Your task to perform on an android device: check android version Image 0: 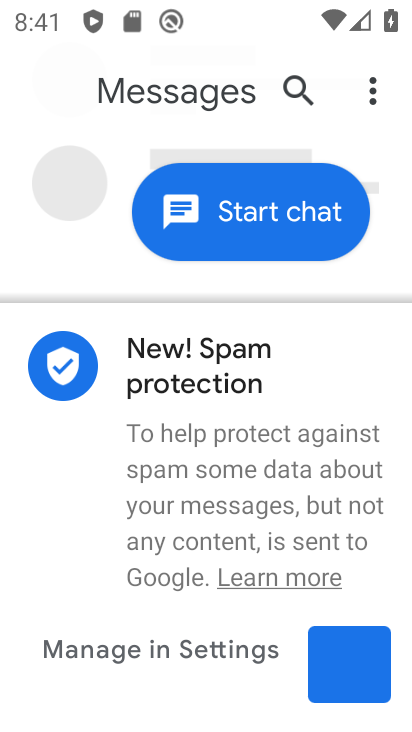
Step 0: press home button
Your task to perform on an android device: check android version Image 1: 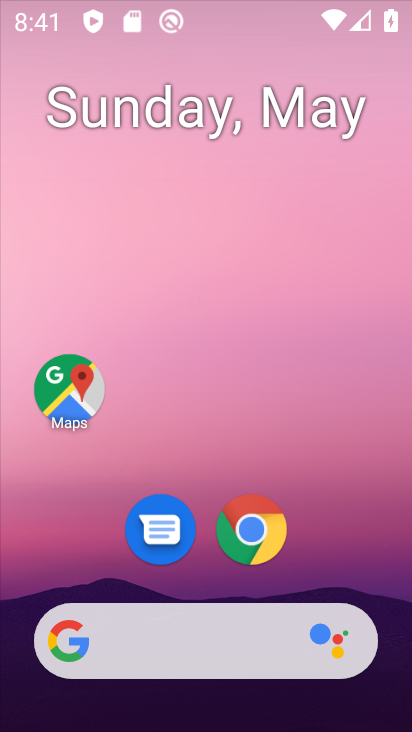
Step 1: drag from (334, 413) to (340, 84)
Your task to perform on an android device: check android version Image 2: 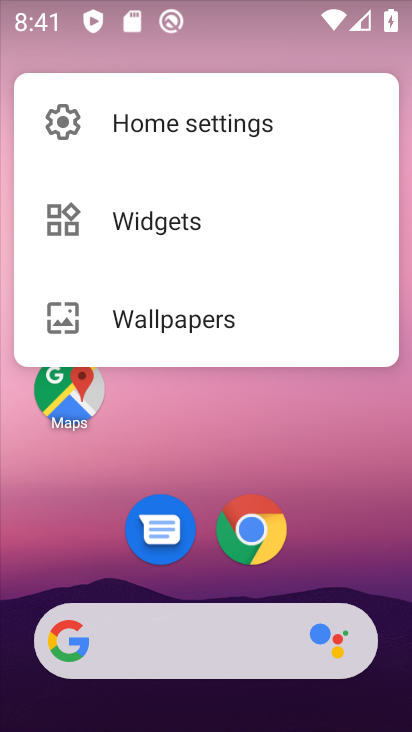
Step 2: drag from (183, 477) to (202, 37)
Your task to perform on an android device: check android version Image 3: 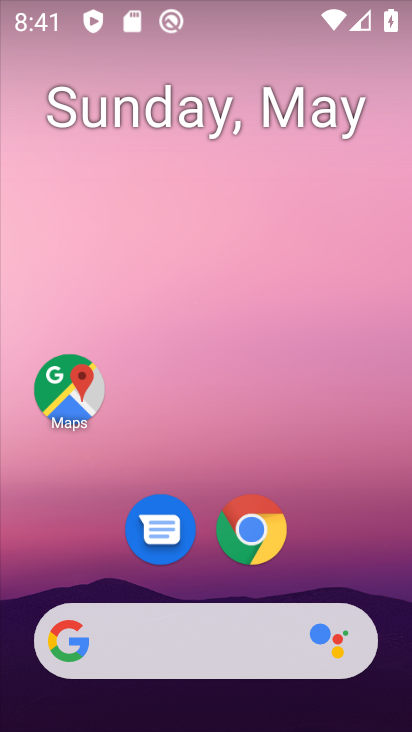
Step 3: drag from (199, 553) to (205, 101)
Your task to perform on an android device: check android version Image 4: 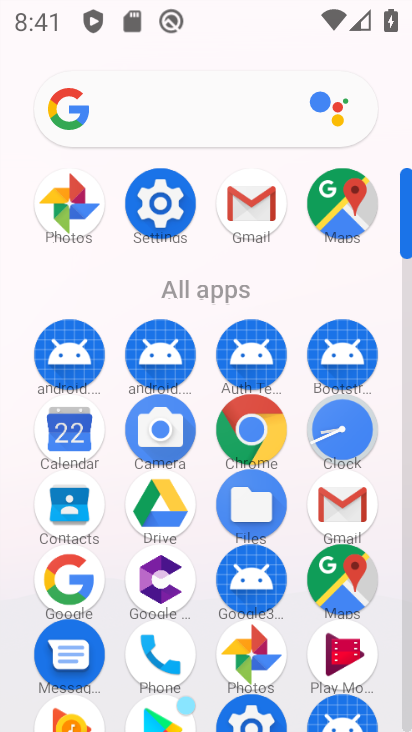
Step 4: click (152, 183)
Your task to perform on an android device: check android version Image 5: 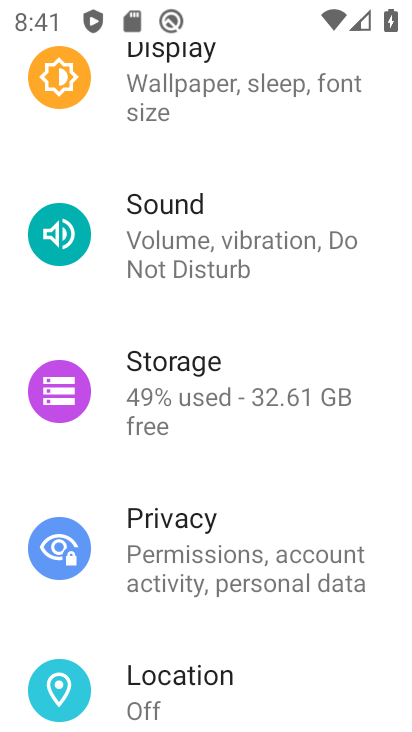
Step 5: drag from (235, 499) to (270, 80)
Your task to perform on an android device: check android version Image 6: 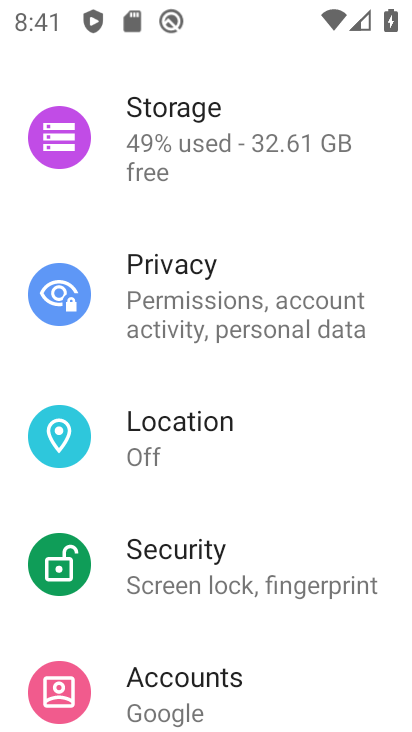
Step 6: drag from (211, 701) to (292, 81)
Your task to perform on an android device: check android version Image 7: 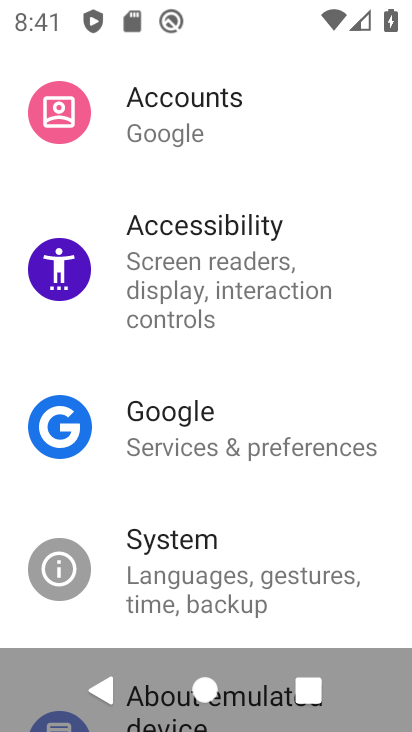
Step 7: drag from (245, 647) to (231, 252)
Your task to perform on an android device: check android version Image 8: 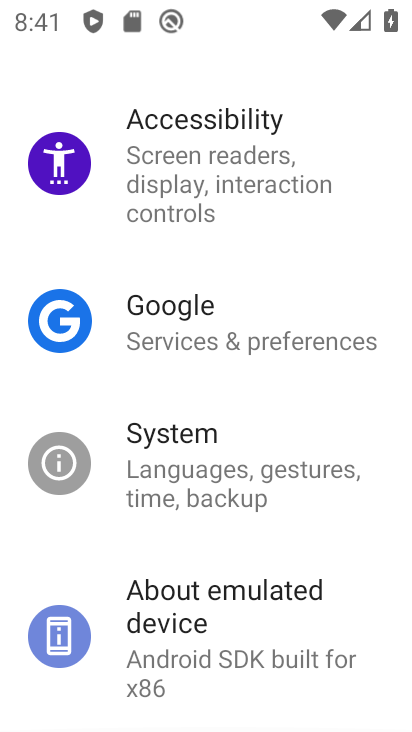
Step 8: click (213, 608)
Your task to perform on an android device: check android version Image 9: 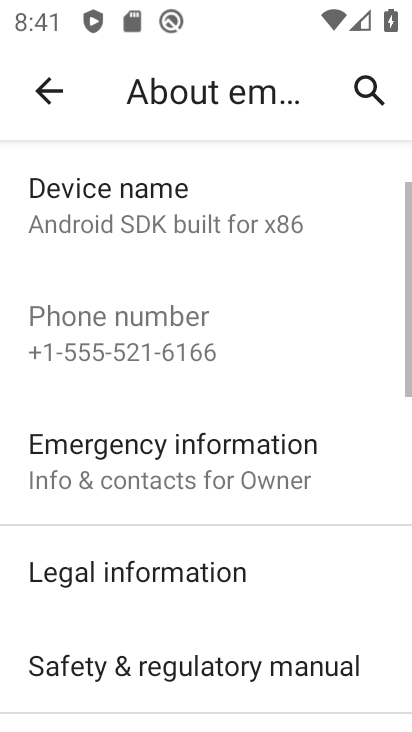
Step 9: drag from (247, 614) to (291, 54)
Your task to perform on an android device: check android version Image 10: 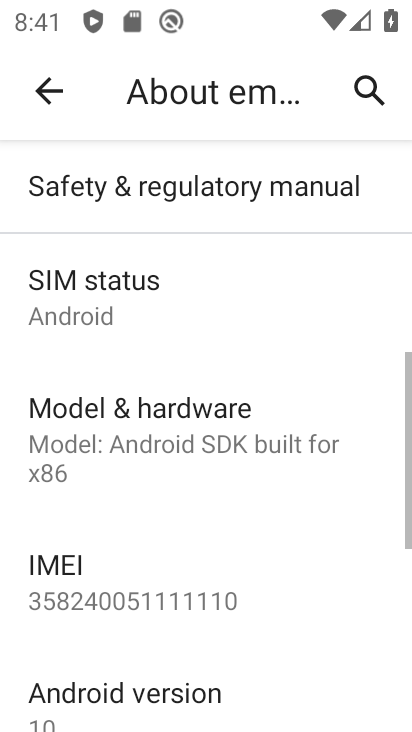
Step 10: click (151, 689)
Your task to perform on an android device: check android version Image 11: 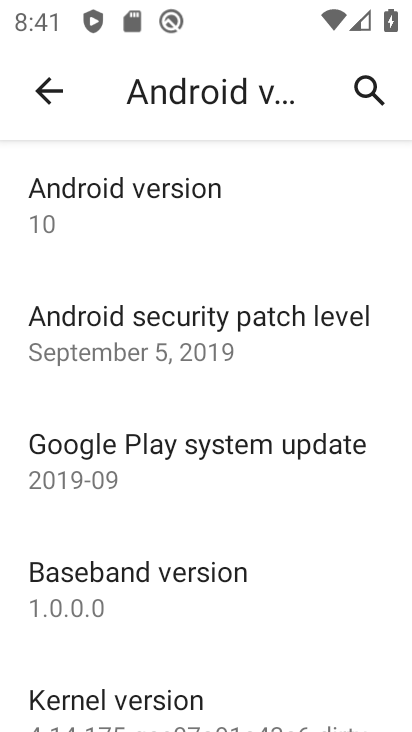
Step 11: task complete